Your task to perform on an android device: Add "asus rog" to the cart on walmart, then select checkout. Image 0: 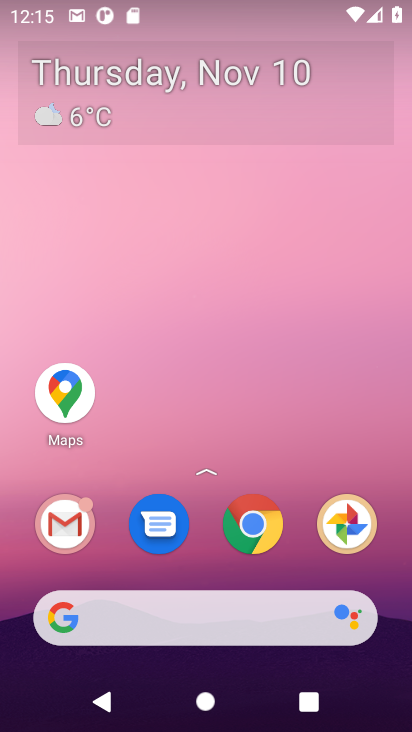
Step 0: click (260, 523)
Your task to perform on an android device: Add "asus rog" to the cart on walmart, then select checkout. Image 1: 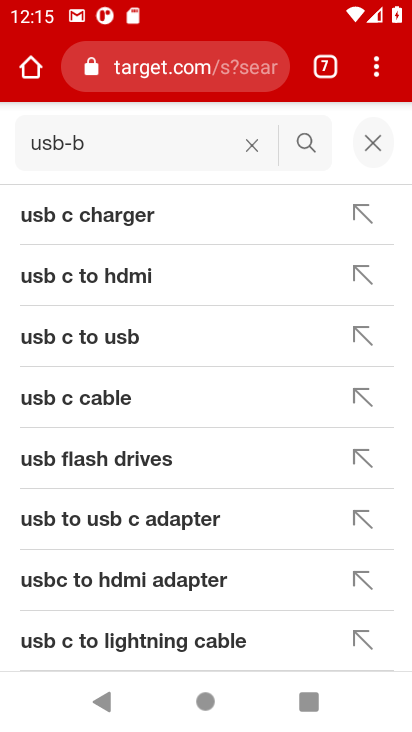
Step 1: click (326, 82)
Your task to perform on an android device: Add "asus rog" to the cart on walmart, then select checkout. Image 2: 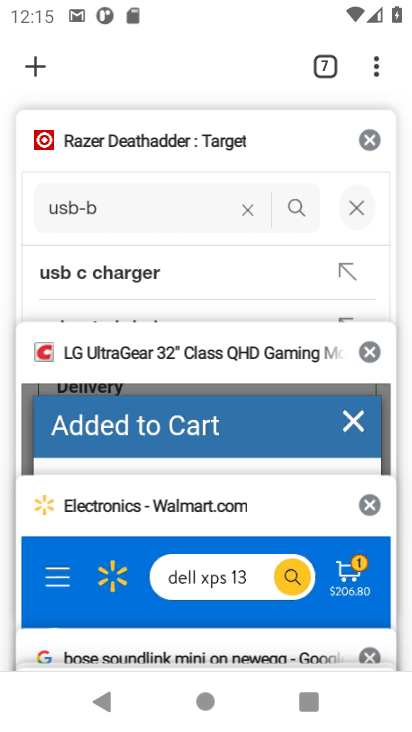
Step 2: click (122, 566)
Your task to perform on an android device: Add "asus rog" to the cart on walmart, then select checkout. Image 3: 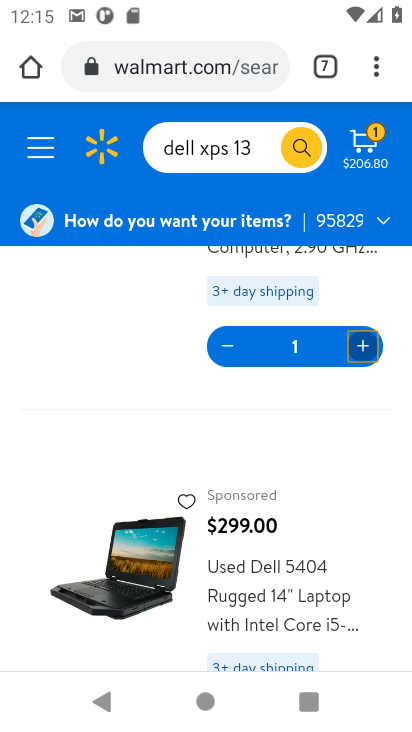
Step 3: click (186, 133)
Your task to perform on an android device: Add "asus rog" to the cart on walmart, then select checkout. Image 4: 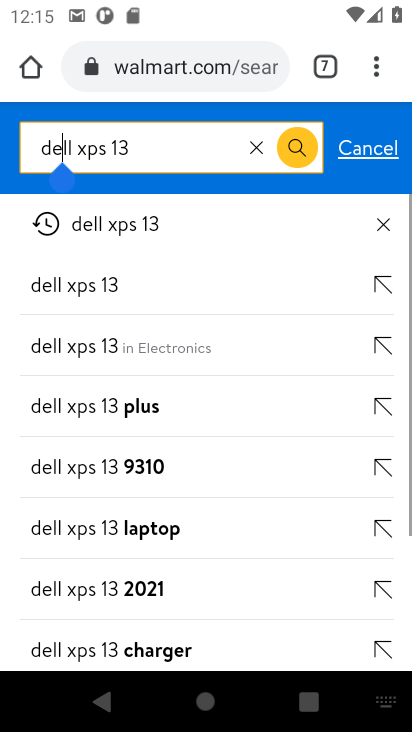
Step 4: click (259, 145)
Your task to perform on an android device: Add "asus rog" to the cart on walmart, then select checkout. Image 5: 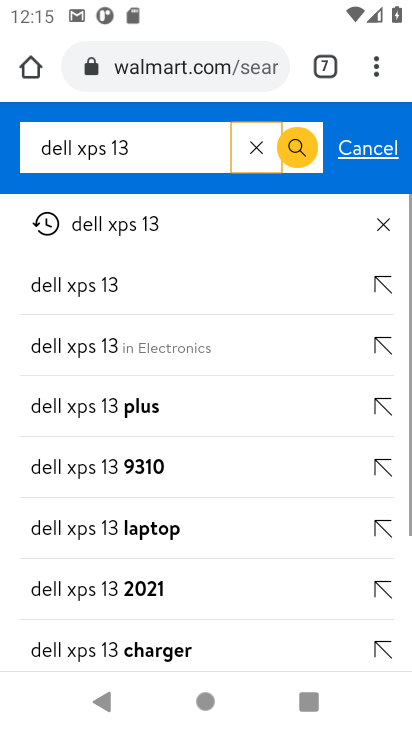
Step 5: click (259, 145)
Your task to perform on an android device: Add "asus rog" to the cart on walmart, then select checkout. Image 6: 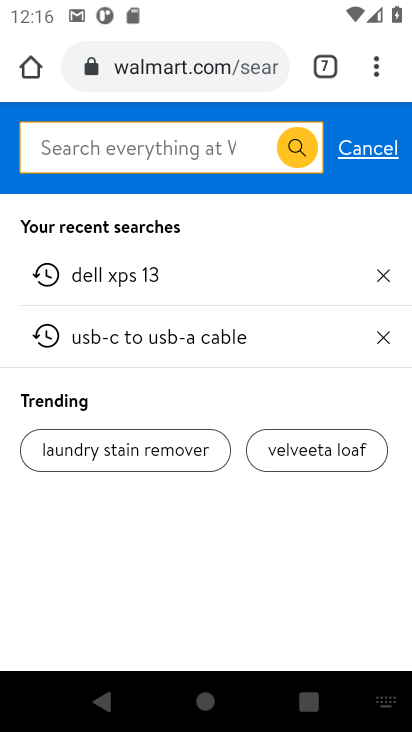
Step 6: type "asus rog"
Your task to perform on an android device: Add "asus rog" to the cart on walmart, then select checkout. Image 7: 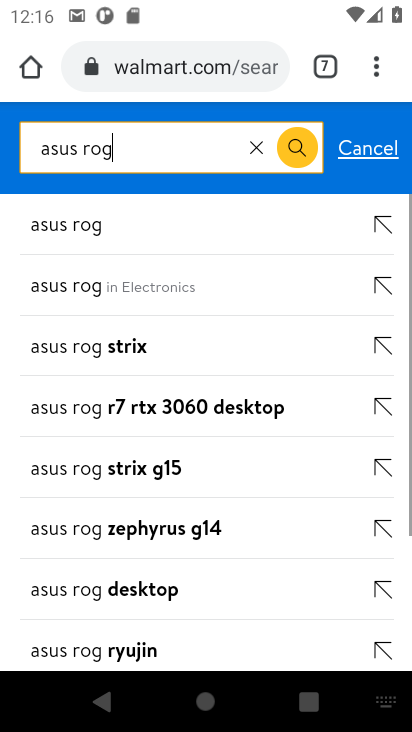
Step 7: click (91, 287)
Your task to perform on an android device: Add "asus rog" to the cart on walmart, then select checkout. Image 8: 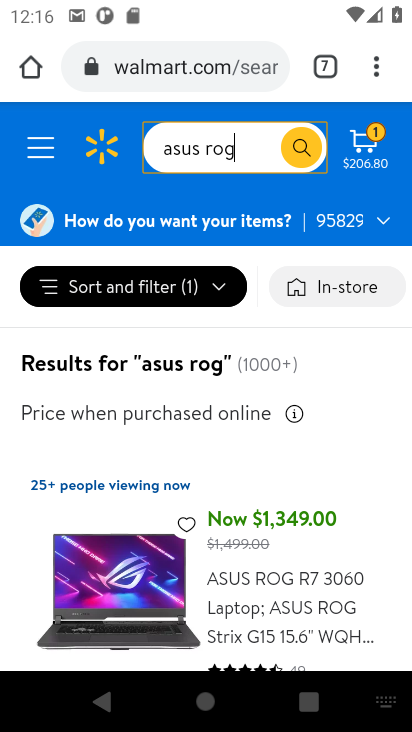
Step 8: drag from (253, 598) to (317, 267)
Your task to perform on an android device: Add "asus rog" to the cart on walmart, then select checkout. Image 9: 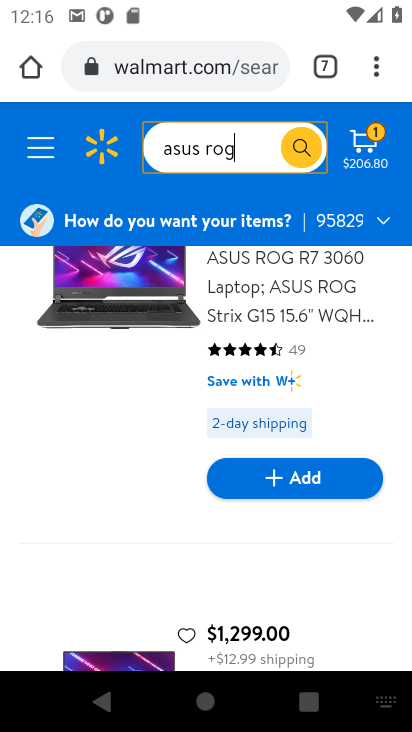
Step 9: click (285, 478)
Your task to perform on an android device: Add "asus rog" to the cart on walmart, then select checkout. Image 10: 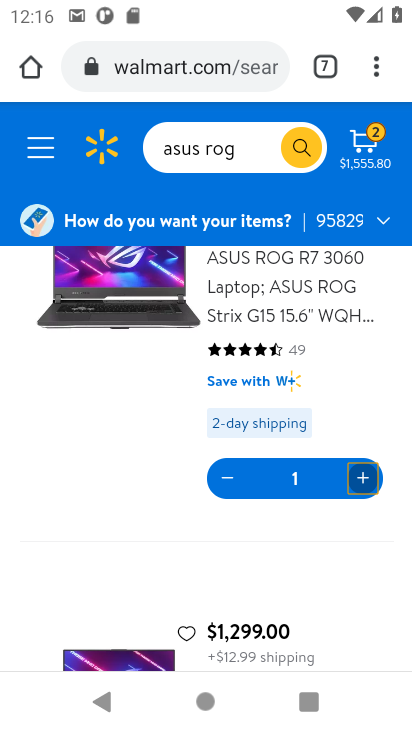
Step 10: click (365, 125)
Your task to perform on an android device: Add "asus rog" to the cart on walmart, then select checkout. Image 11: 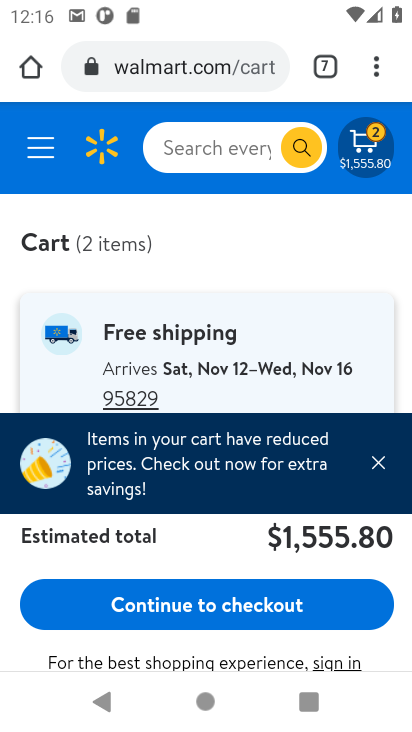
Step 11: click (157, 607)
Your task to perform on an android device: Add "asus rog" to the cart on walmart, then select checkout. Image 12: 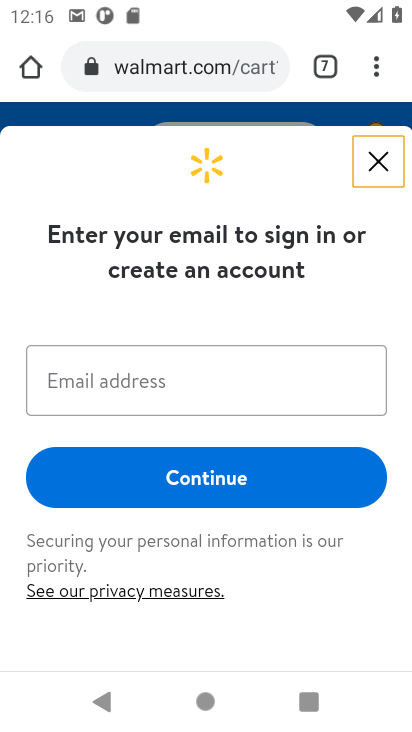
Step 12: task complete